Your task to perform on an android device: turn on javascript in the chrome app Image 0: 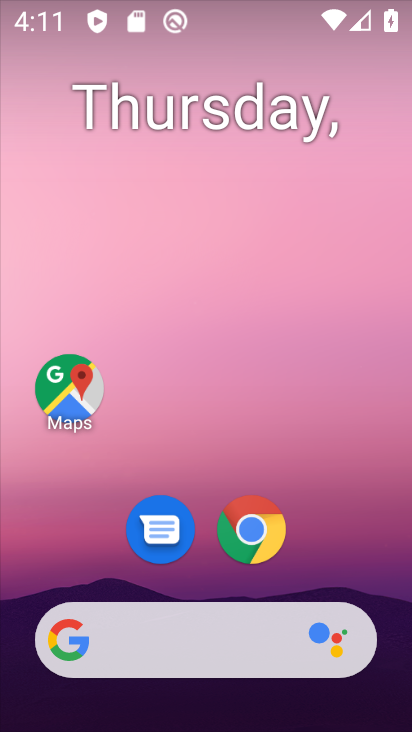
Step 0: click (245, 530)
Your task to perform on an android device: turn on javascript in the chrome app Image 1: 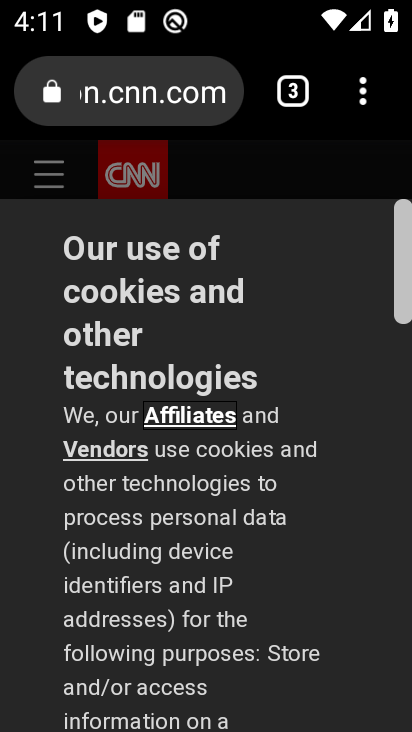
Step 1: click (364, 101)
Your task to perform on an android device: turn on javascript in the chrome app Image 2: 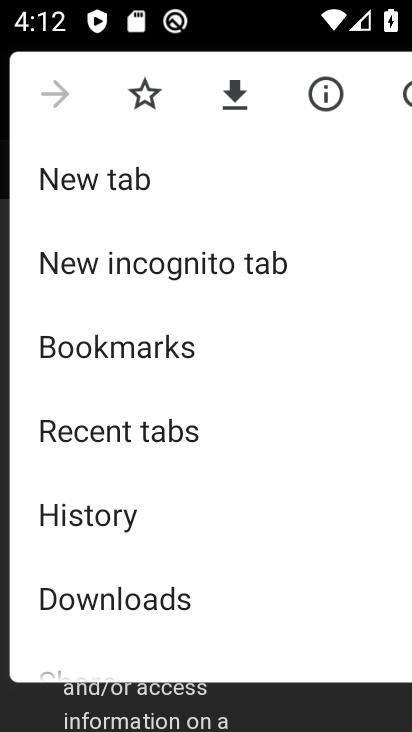
Step 2: drag from (106, 646) to (115, 268)
Your task to perform on an android device: turn on javascript in the chrome app Image 3: 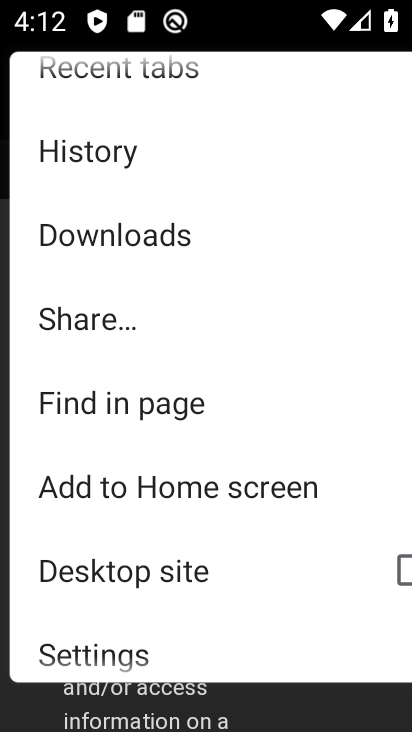
Step 3: click (92, 652)
Your task to perform on an android device: turn on javascript in the chrome app Image 4: 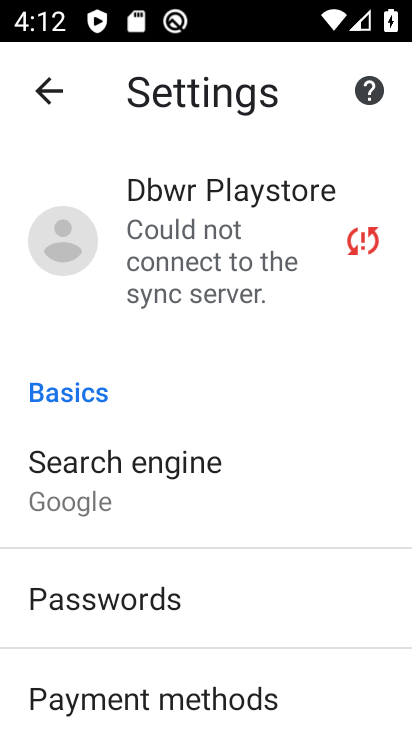
Step 4: drag from (119, 681) to (130, 275)
Your task to perform on an android device: turn on javascript in the chrome app Image 5: 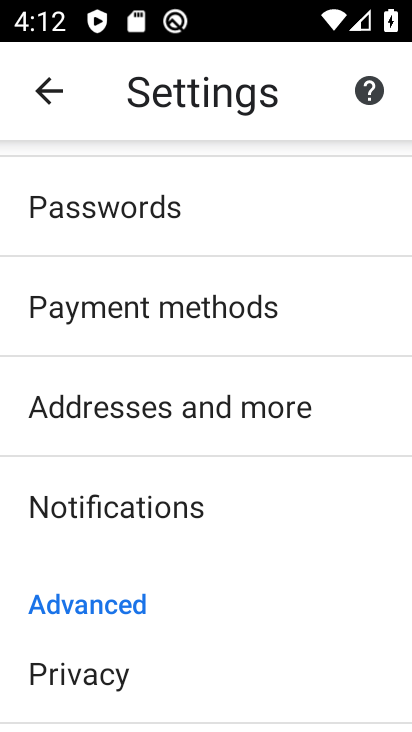
Step 5: drag from (174, 683) to (175, 282)
Your task to perform on an android device: turn on javascript in the chrome app Image 6: 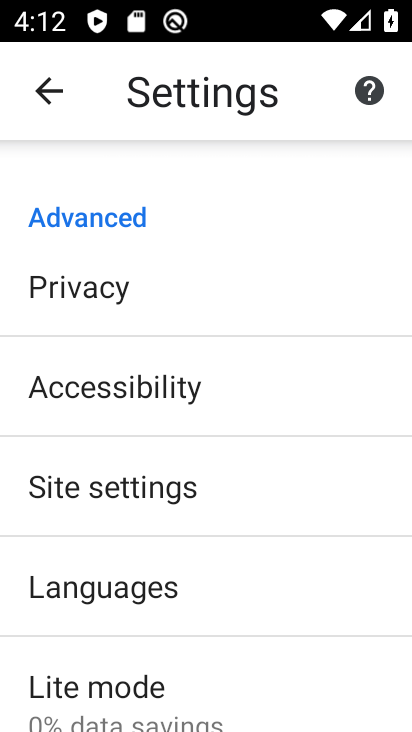
Step 6: drag from (118, 685) to (118, 520)
Your task to perform on an android device: turn on javascript in the chrome app Image 7: 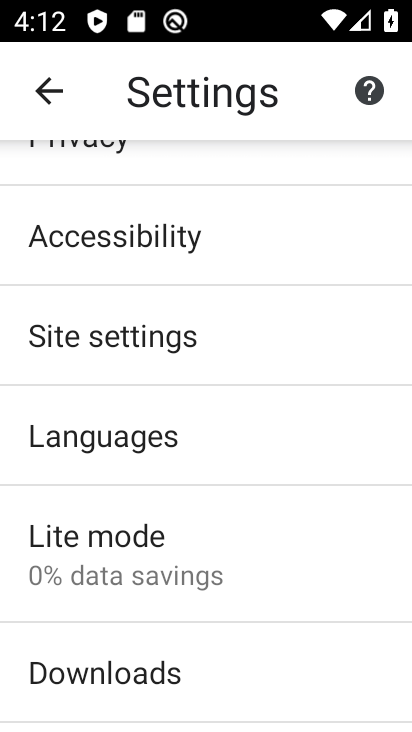
Step 7: click (109, 327)
Your task to perform on an android device: turn on javascript in the chrome app Image 8: 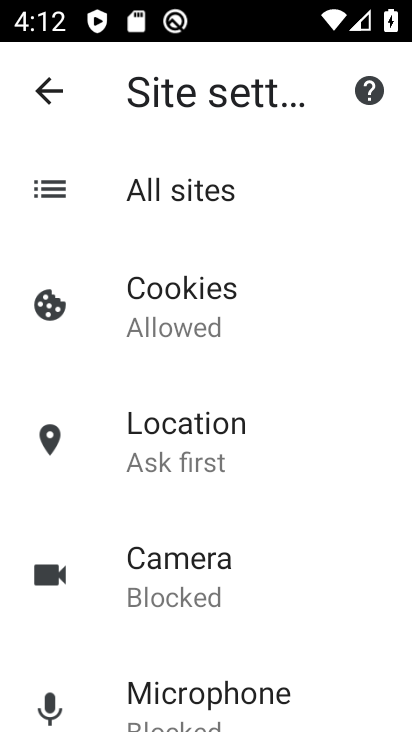
Step 8: drag from (178, 652) to (188, 335)
Your task to perform on an android device: turn on javascript in the chrome app Image 9: 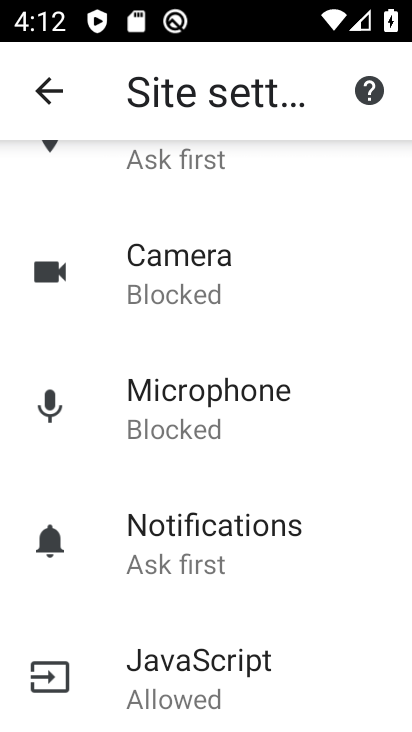
Step 9: drag from (187, 661) to (190, 432)
Your task to perform on an android device: turn on javascript in the chrome app Image 10: 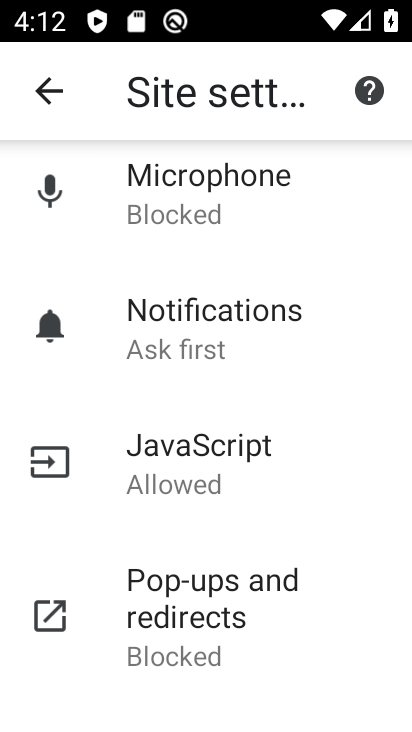
Step 10: click (188, 479)
Your task to perform on an android device: turn on javascript in the chrome app Image 11: 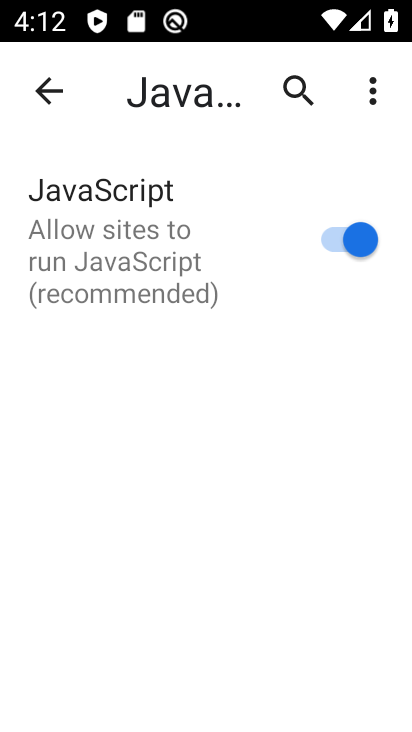
Step 11: task complete